Your task to perform on an android device: See recent photos Image 0: 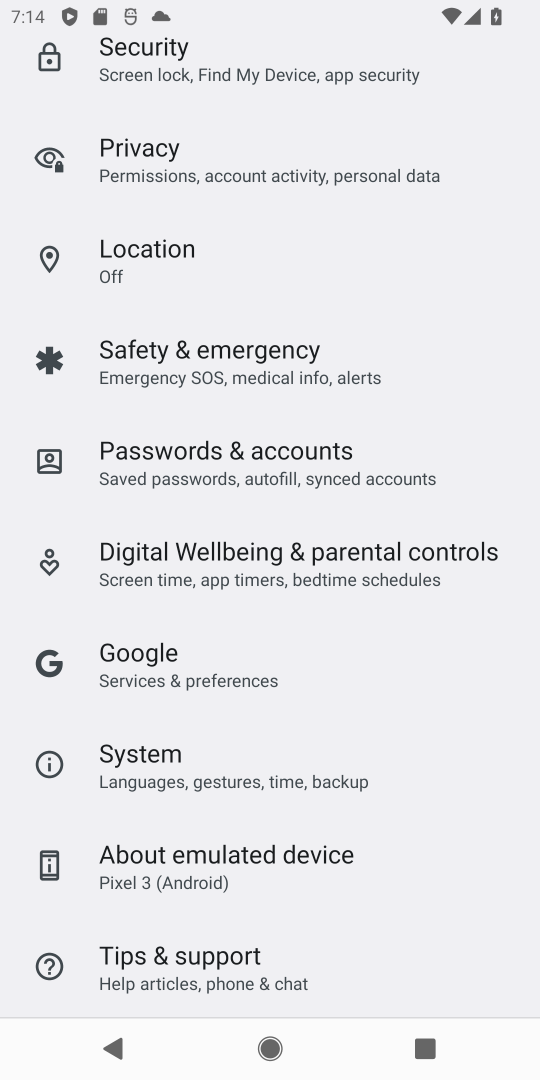
Step 0: press home button
Your task to perform on an android device: See recent photos Image 1: 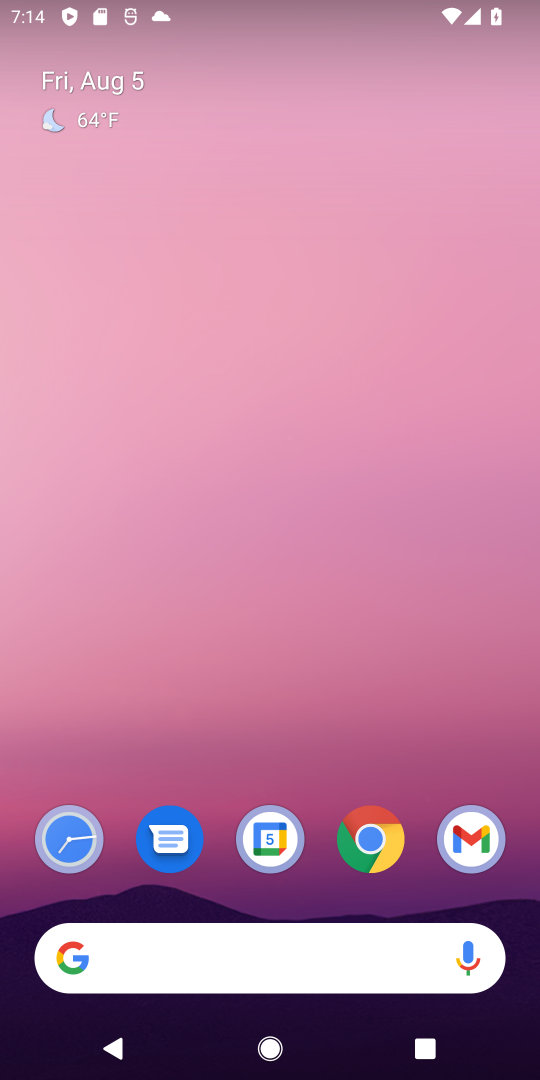
Step 1: drag from (290, 916) to (281, 162)
Your task to perform on an android device: See recent photos Image 2: 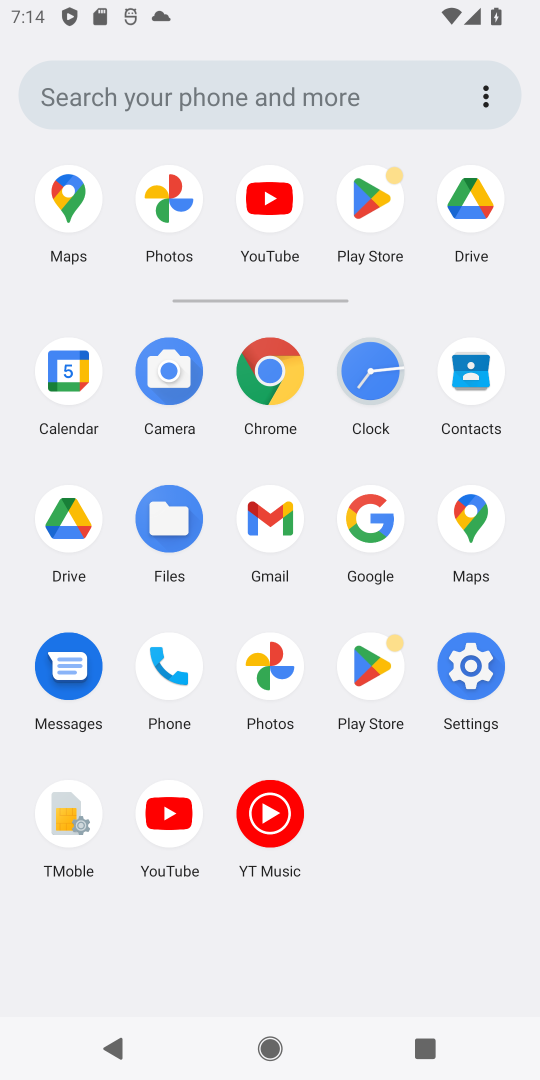
Step 2: click (281, 667)
Your task to perform on an android device: See recent photos Image 3: 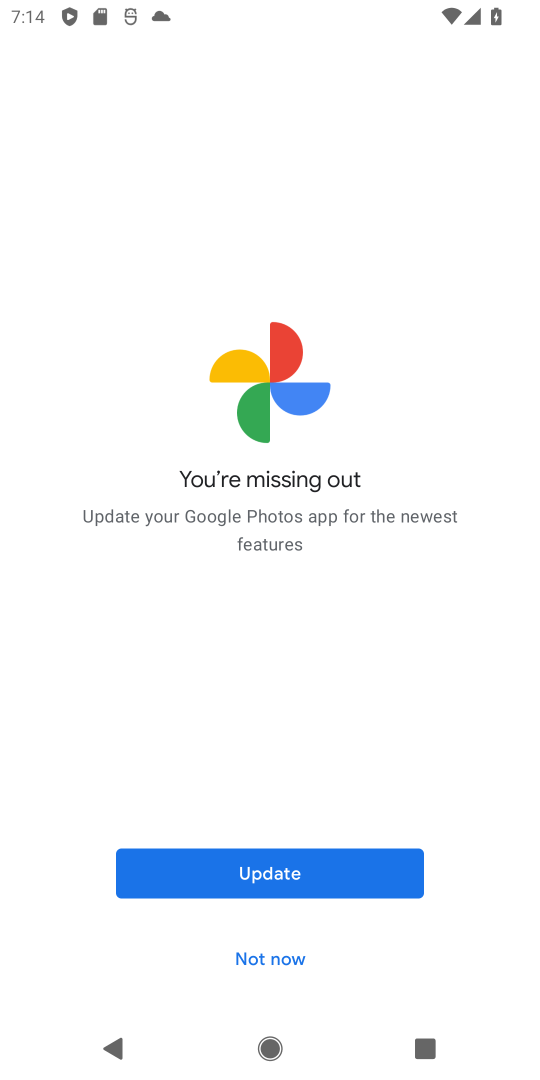
Step 3: press home button
Your task to perform on an android device: See recent photos Image 4: 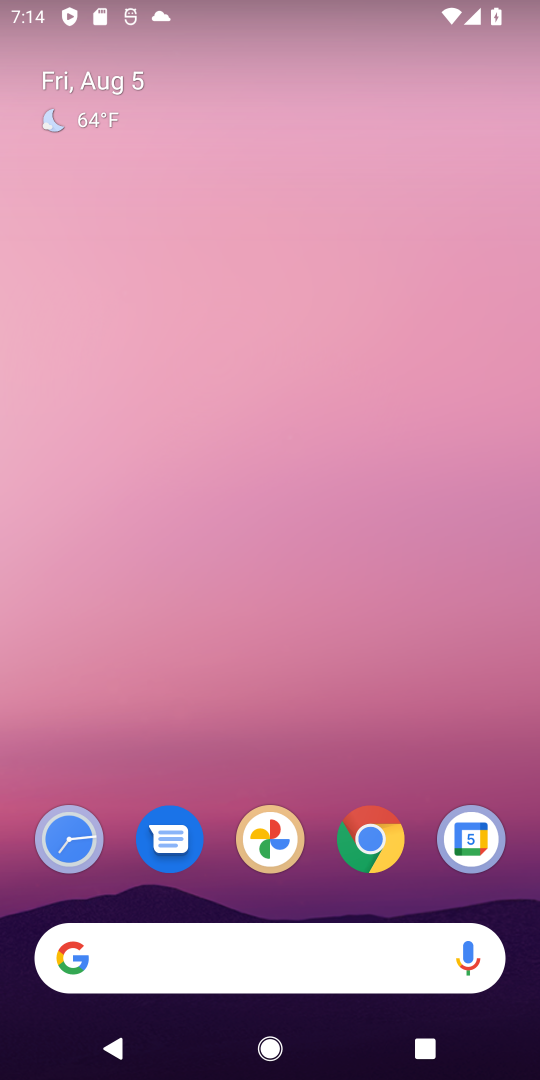
Step 4: drag from (335, 833) to (333, 37)
Your task to perform on an android device: See recent photos Image 5: 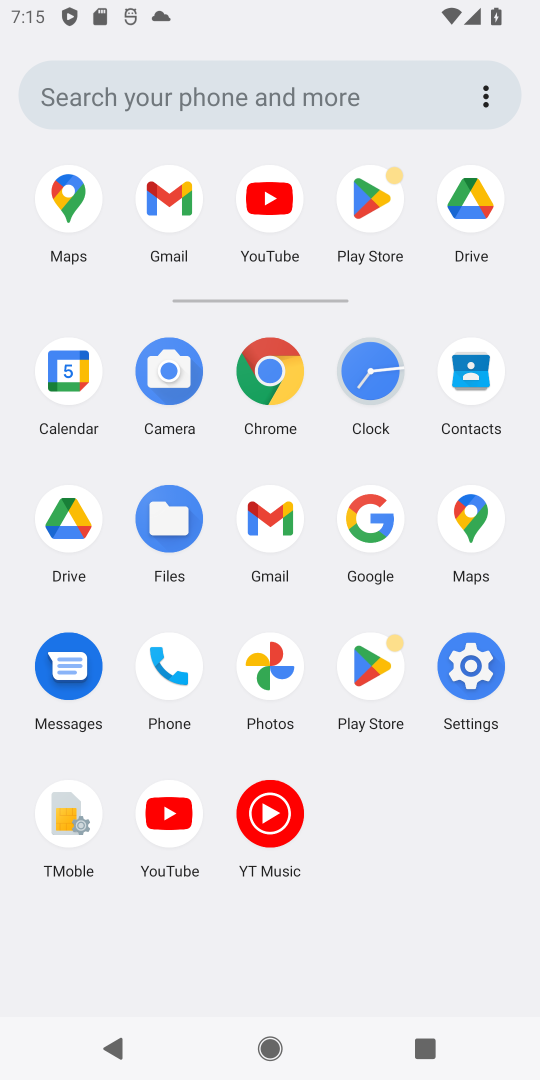
Step 5: click (269, 659)
Your task to perform on an android device: See recent photos Image 6: 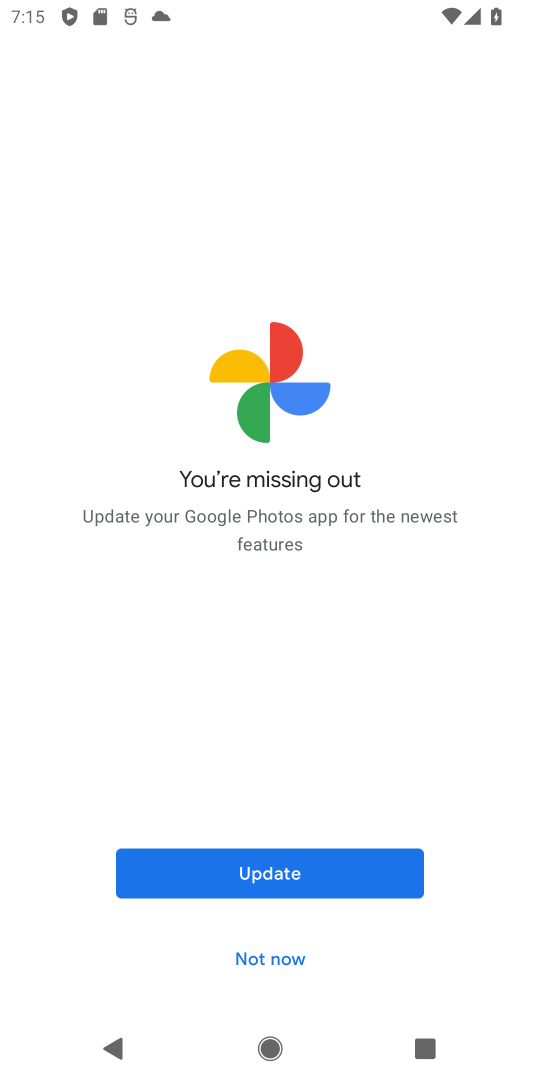
Step 6: task complete